Your task to perform on an android device: Search for sushi restaurants on Maps Image 0: 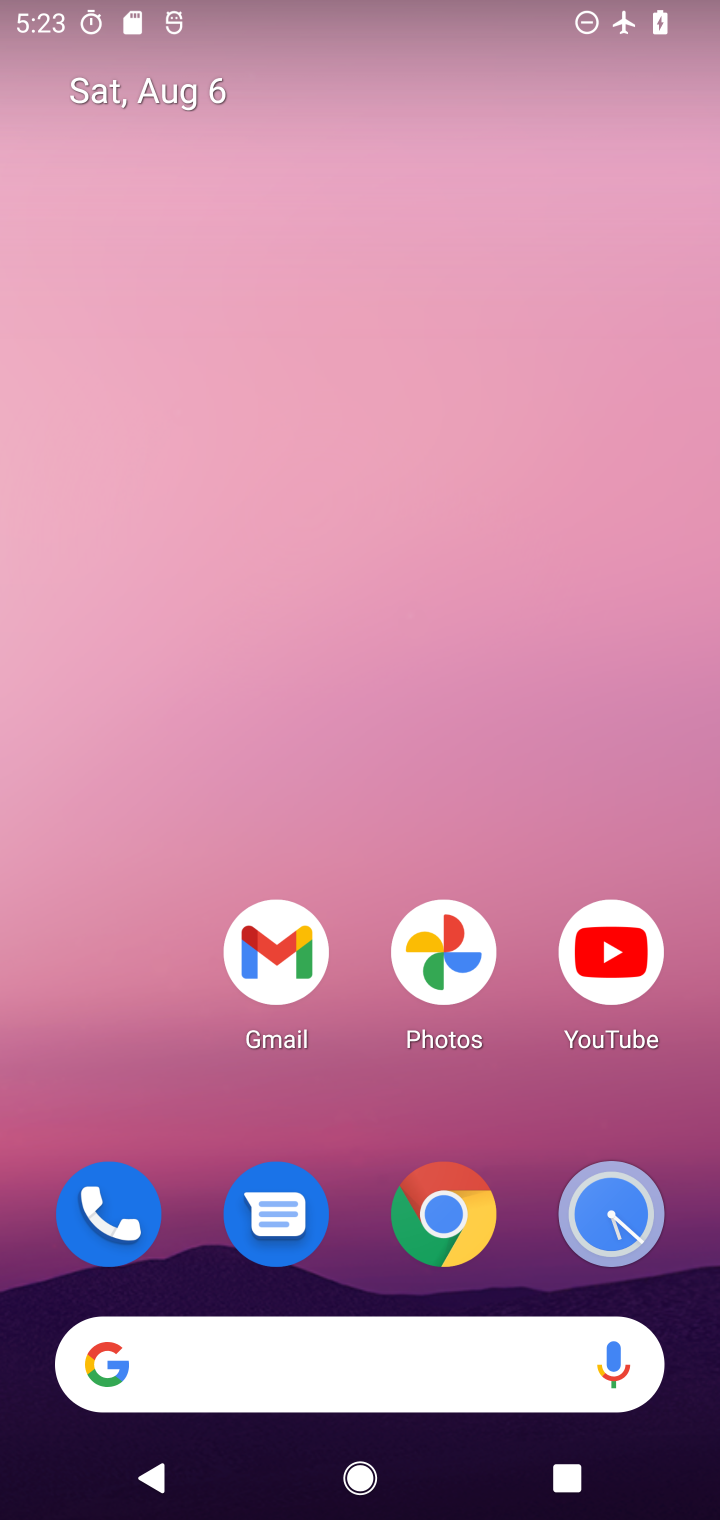
Step 0: drag from (435, 604) to (435, 259)
Your task to perform on an android device: Search for sushi restaurants on Maps Image 1: 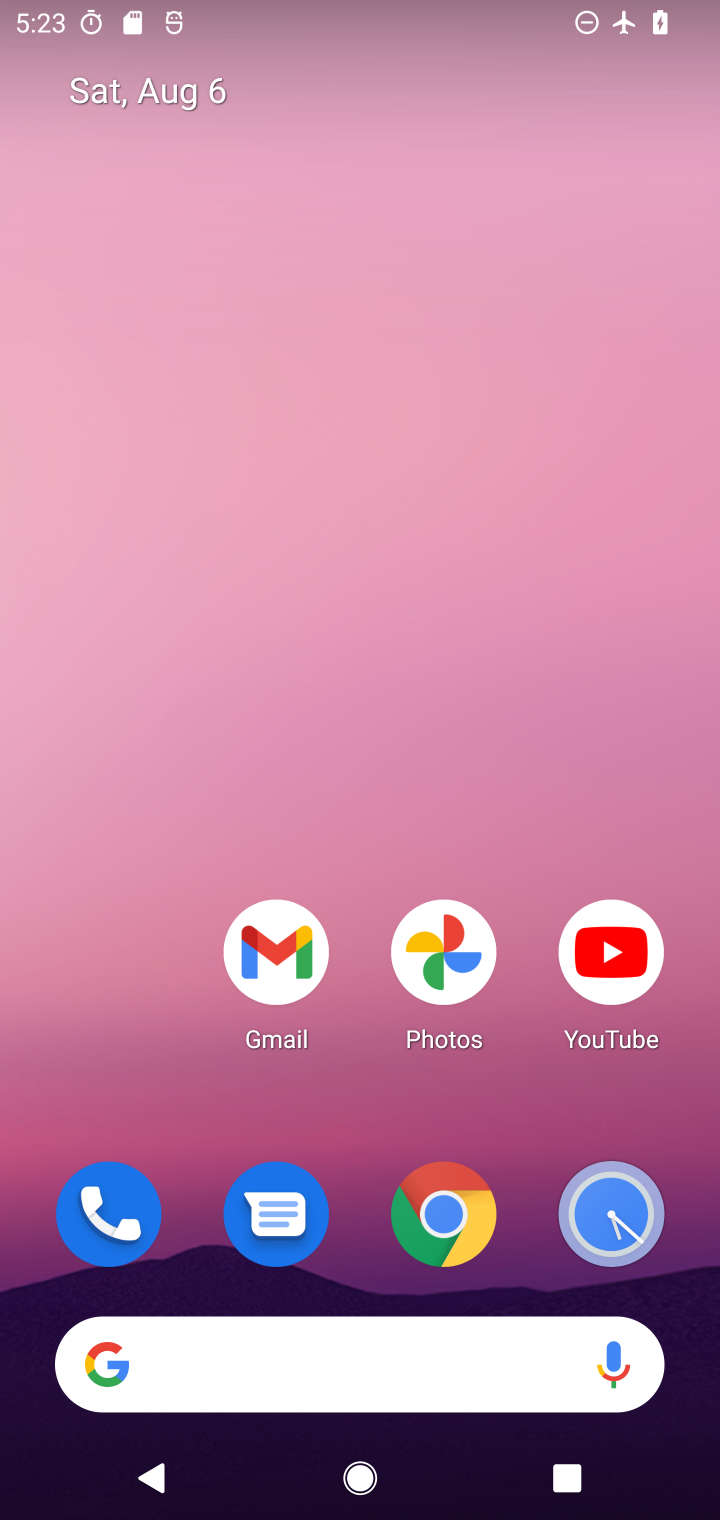
Step 1: drag from (341, 1246) to (341, 279)
Your task to perform on an android device: Search for sushi restaurants on Maps Image 2: 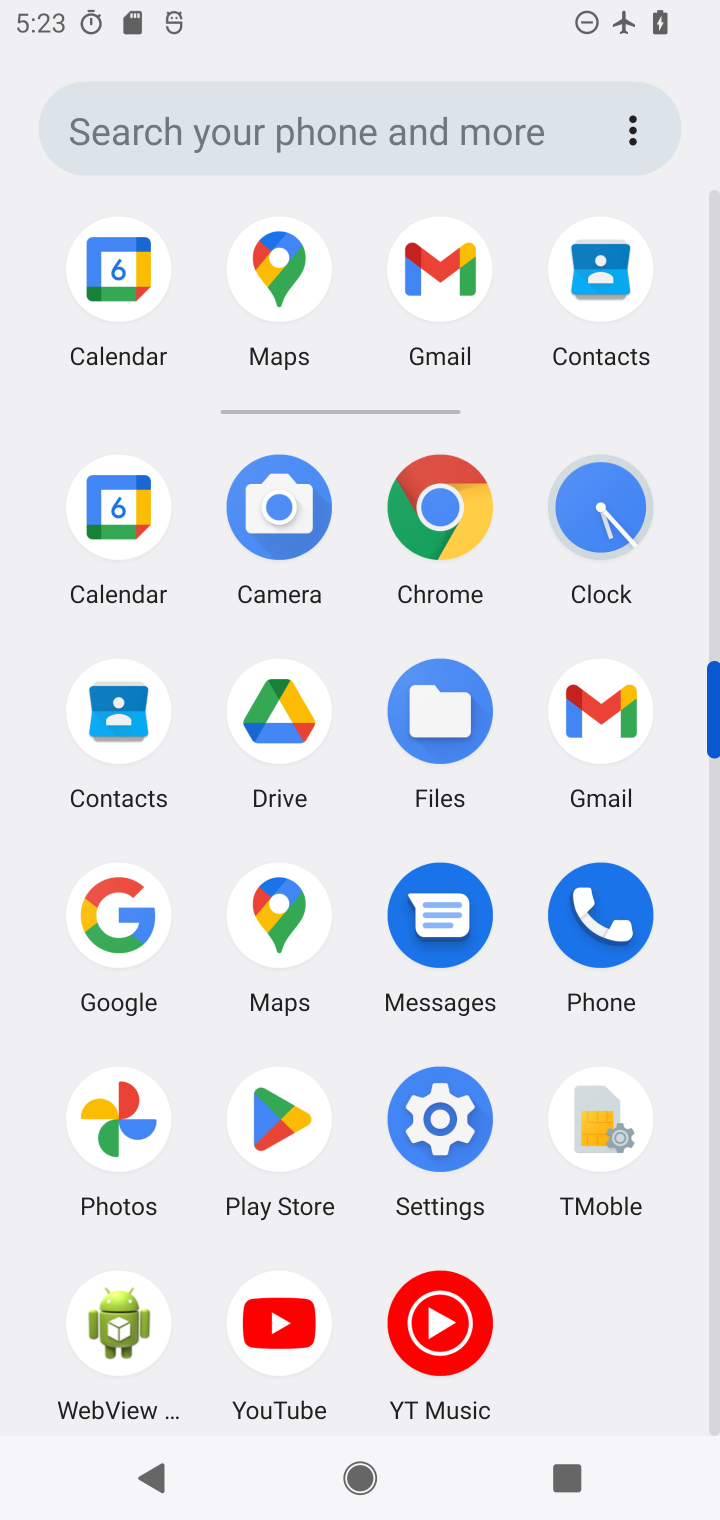
Step 2: click (279, 942)
Your task to perform on an android device: Search for sushi restaurants on Maps Image 3: 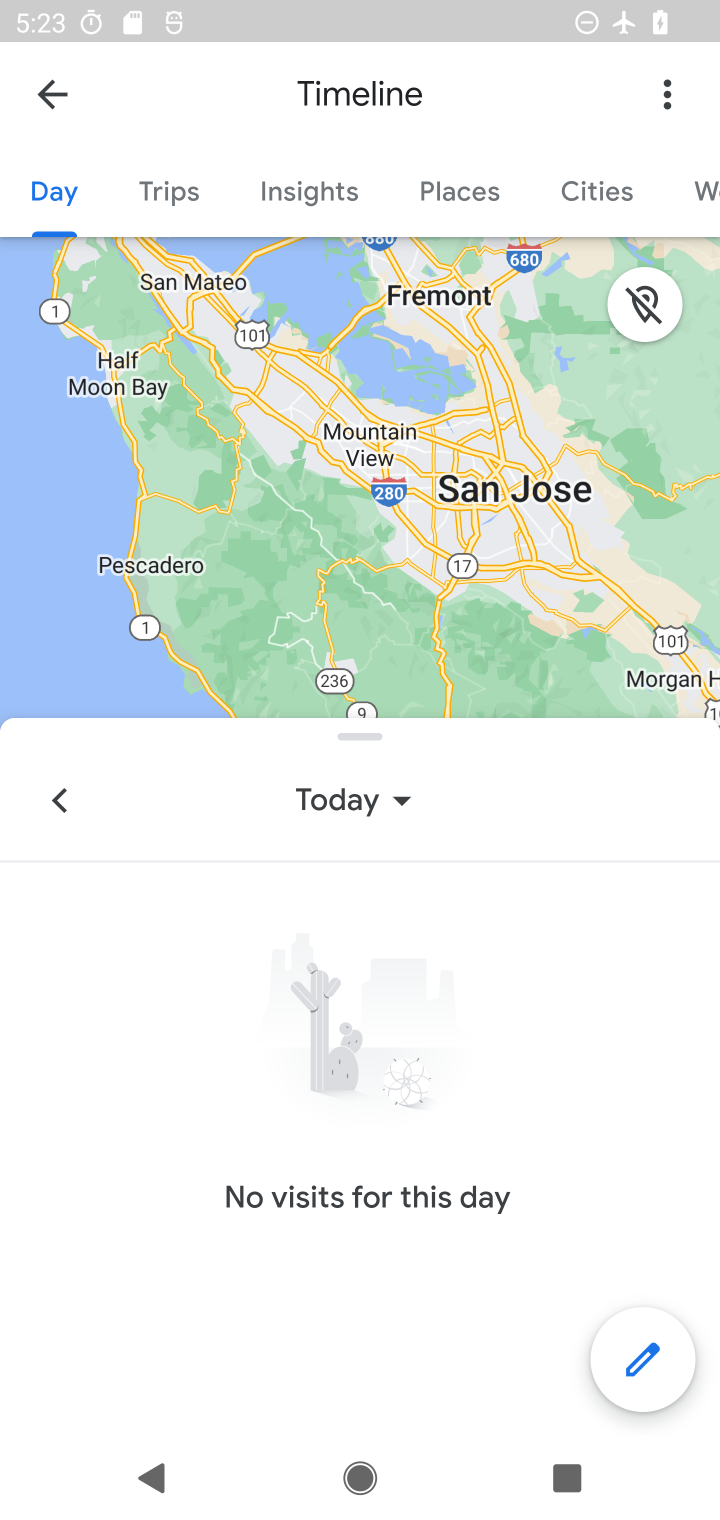
Step 3: click (34, 95)
Your task to perform on an android device: Search for sushi restaurants on Maps Image 4: 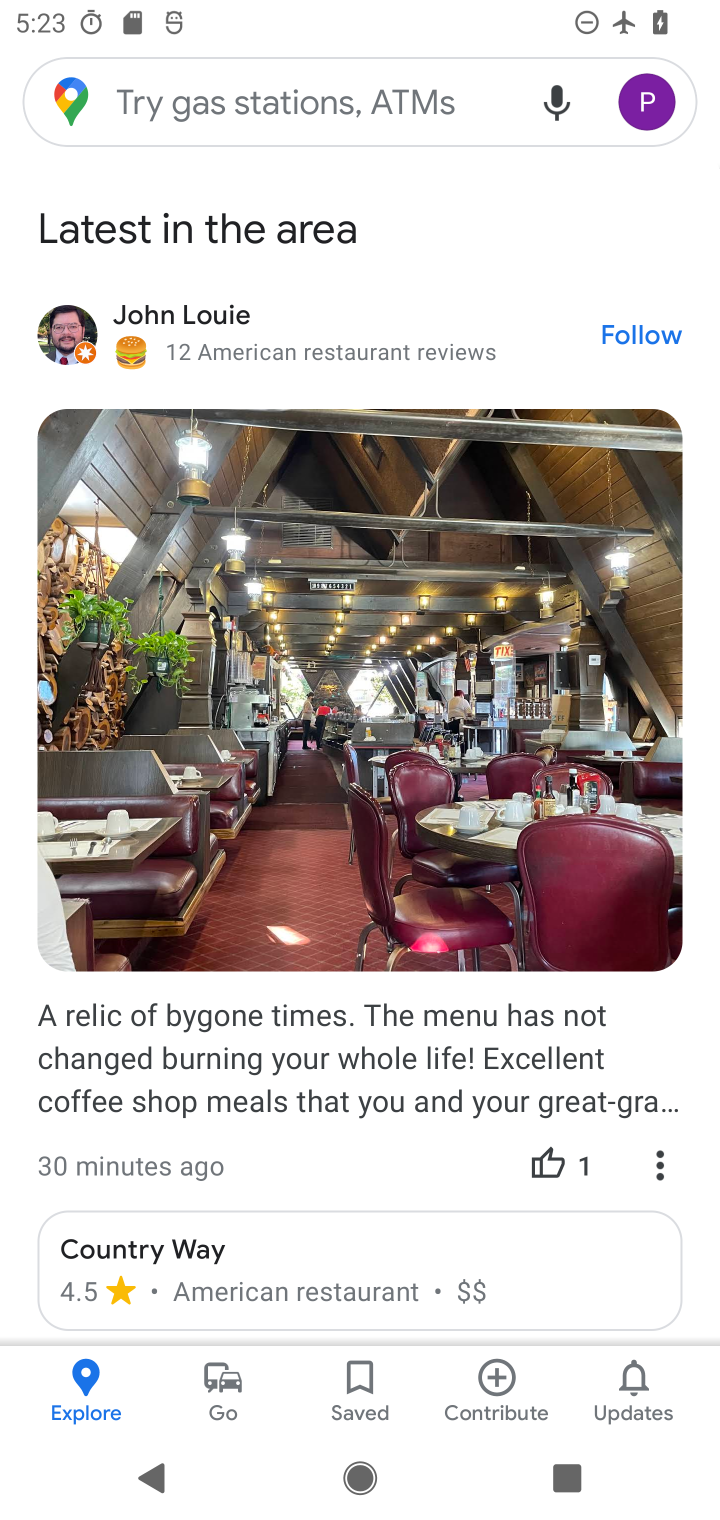
Step 4: click (330, 95)
Your task to perform on an android device: Search for sushi restaurants on Maps Image 5: 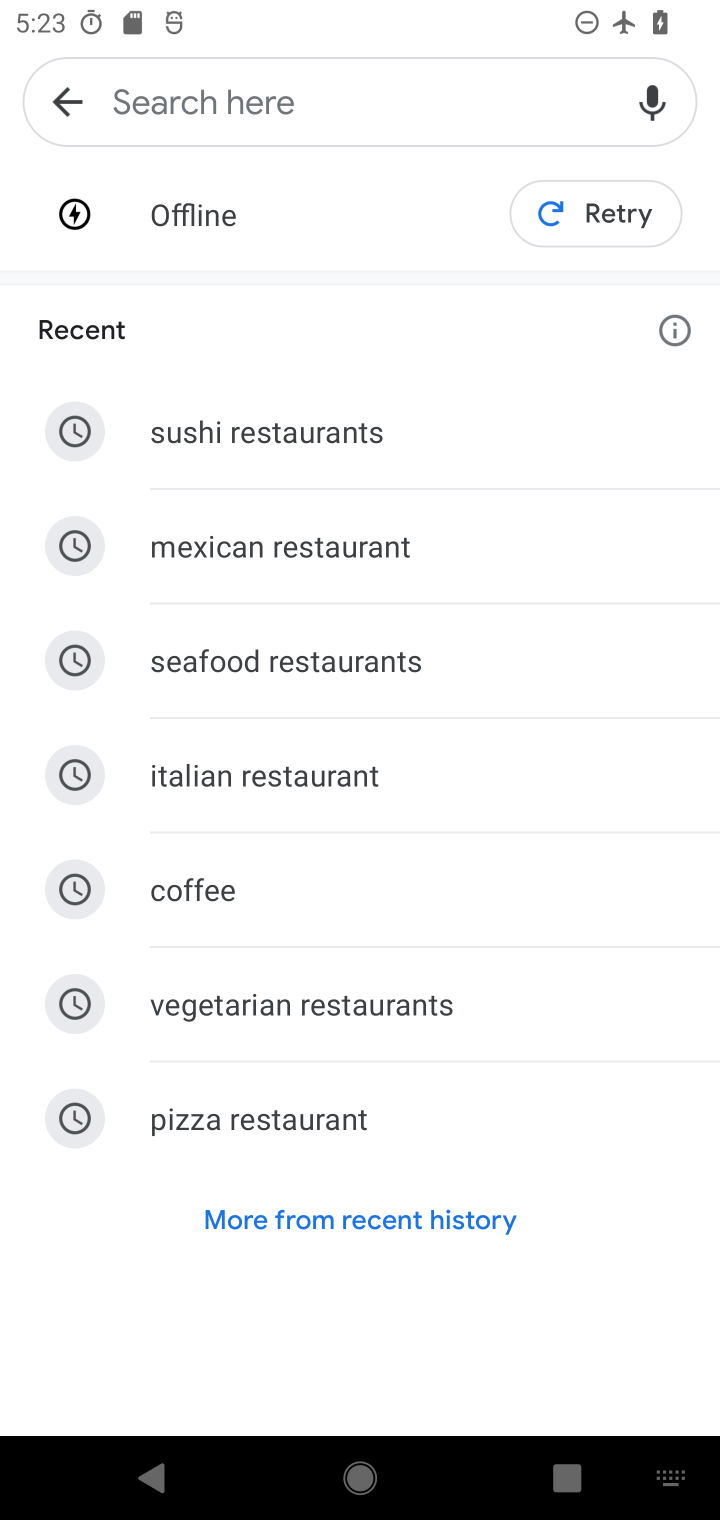
Step 5: type " sushi restaurants "
Your task to perform on an android device: Search for sushi restaurants on Maps Image 6: 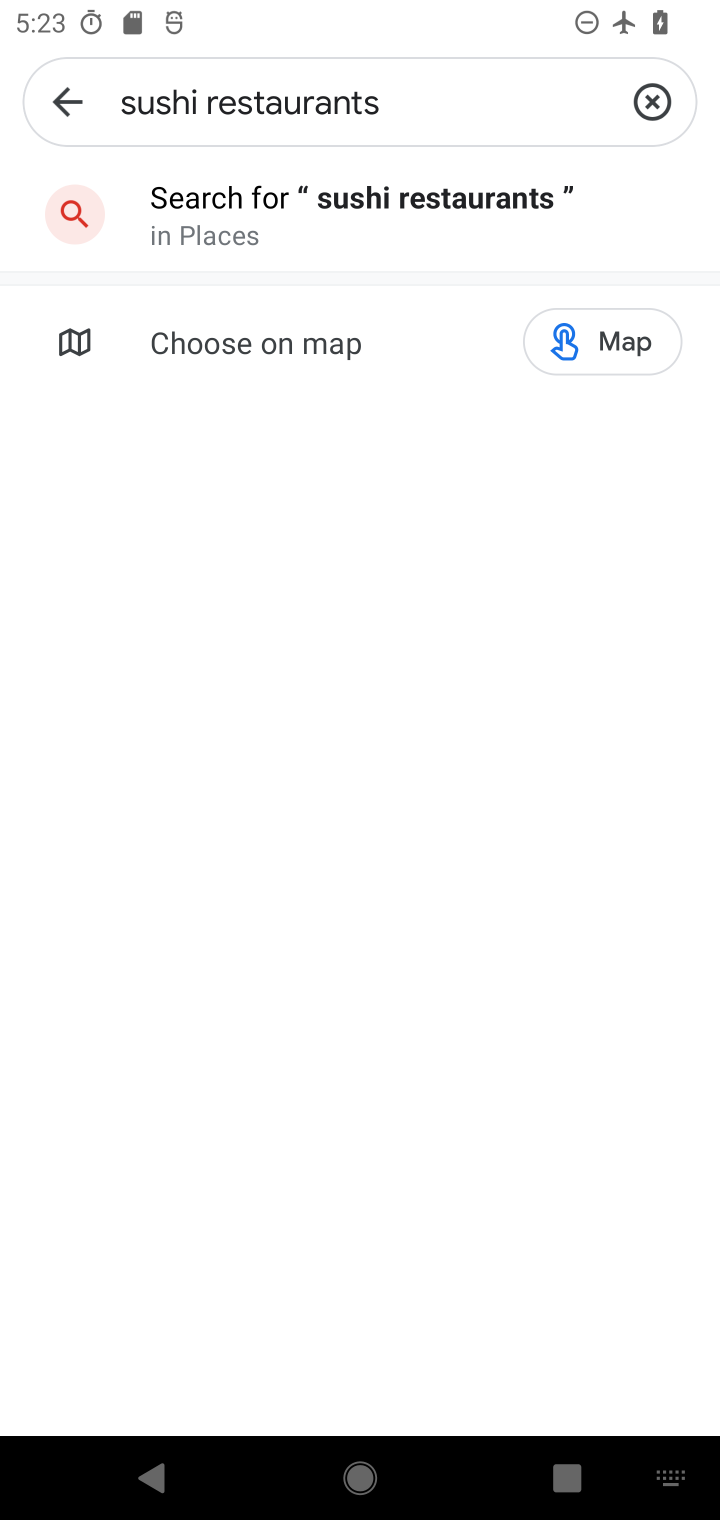
Step 6: task complete